Your task to perform on an android device: choose inbox layout in the gmail app Image 0: 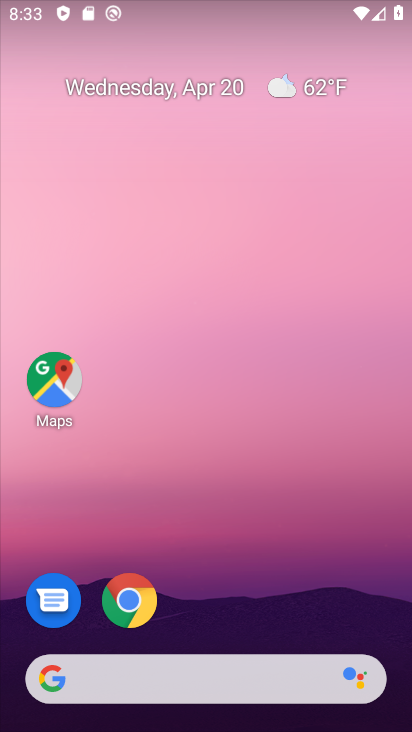
Step 0: drag from (204, 724) to (202, 88)
Your task to perform on an android device: choose inbox layout in the gmail app Image 1: 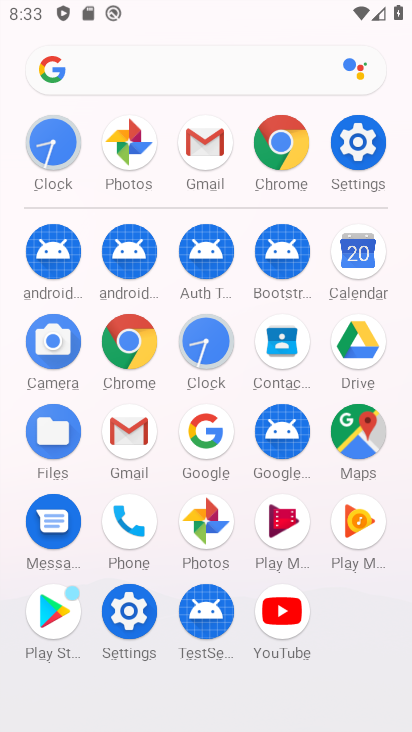
Step 1: click (128, 432)
Your task to perform on an android device: choose inbox layout in the gmail app Image 2: 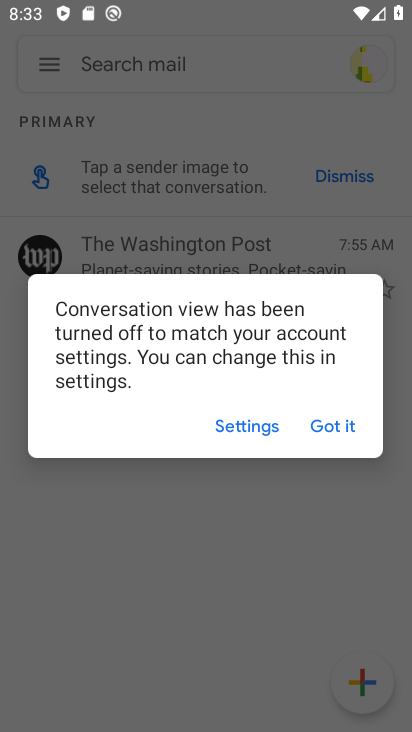
Step 2: click (338, 425)
Your task to perform on an android device: choose inbox layout in the gmail app Image 3: 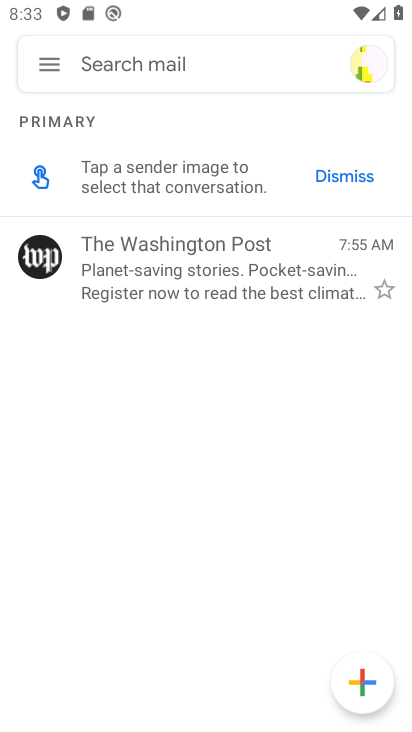
Step 3: click (51, 69)
Your task to perform on an android device: choose inbox layout in the gmail app Image 4: 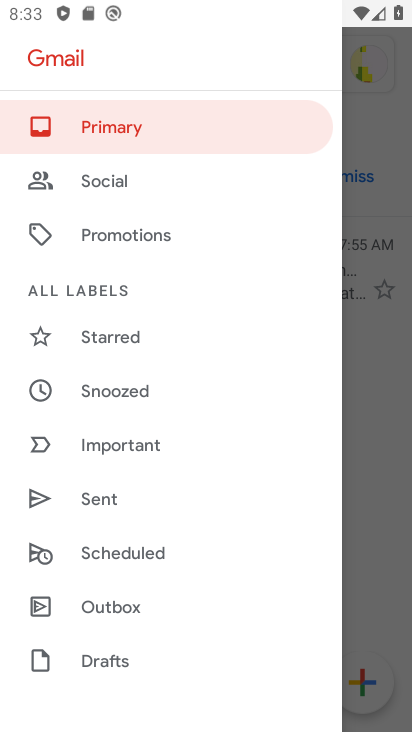
Step 4: drag from (138, 427) to (138, 196)
Your task to perform on an android device: choose inbox layout in the gmail app Image 5: 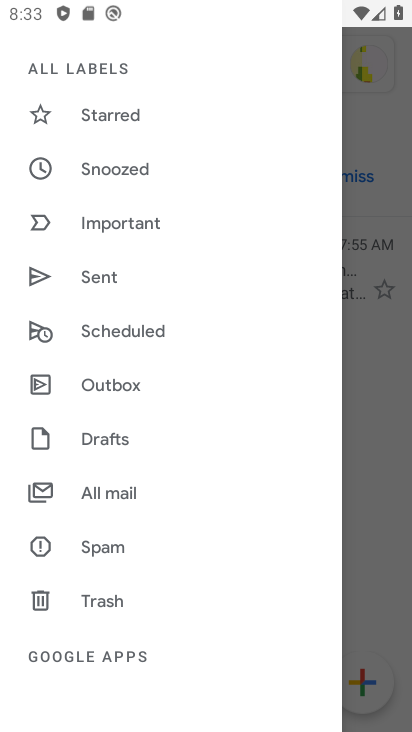
Step 5: drag from (122, 615) to (118, 272)
Your task to perform on an android device: choose inbox layout in the gmail app Image 6: 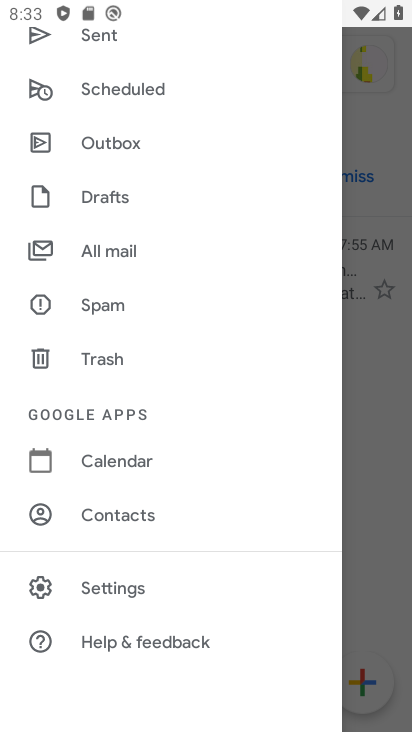
Step 6: click (115, 587)
Your task to perform on an android device: choose inbox layout in the gmail app Image 7: 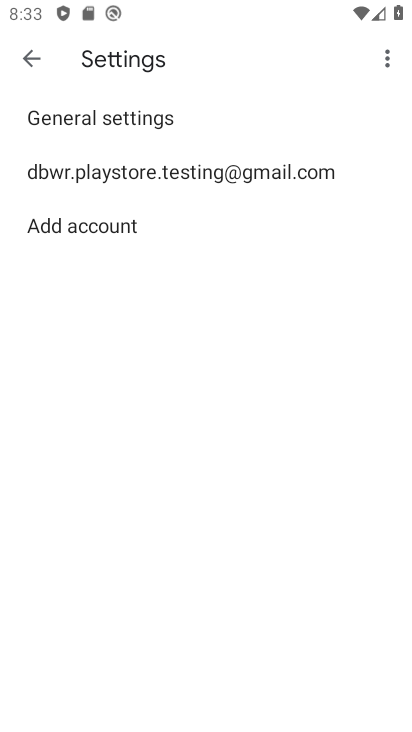
Step 7: click (146, 172)
Your task to perform on an android device: choose inbox layout in the gmail app Image 8: 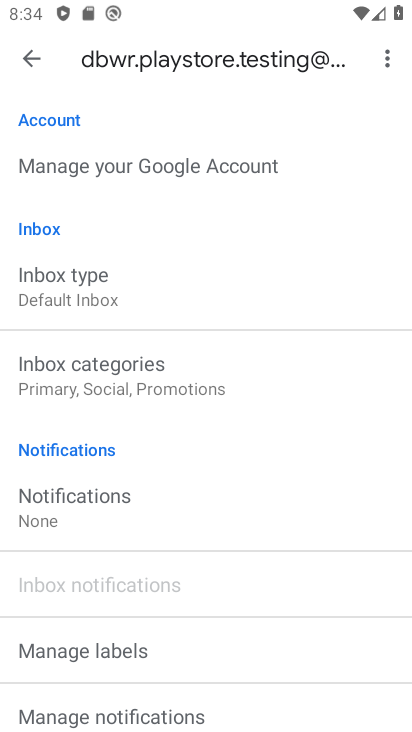
Step 8: click (64, 300)
Your task to perform on an android device: choose inbox layout in the gmail app Image 9: 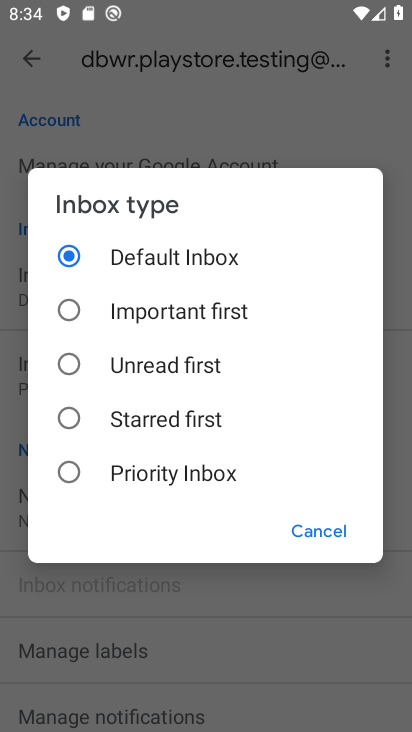
Step 9: click (69, 312)
Your task to perform on an android device: choose inbox layout in the gmail app Image 10: 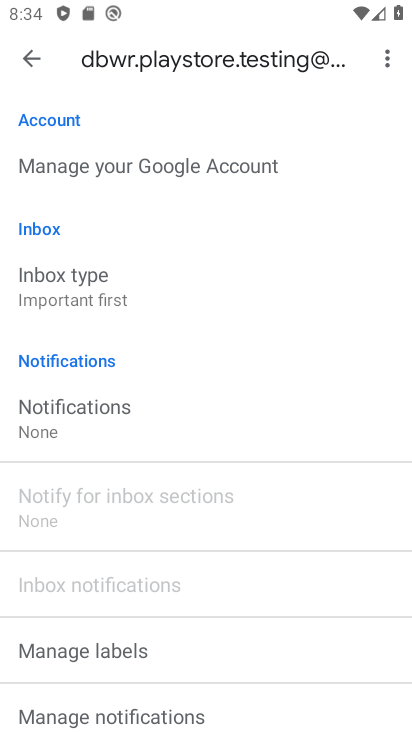
Step 10: task complete